Your task to perform on an android device: Go to ESPN.com Image 0: 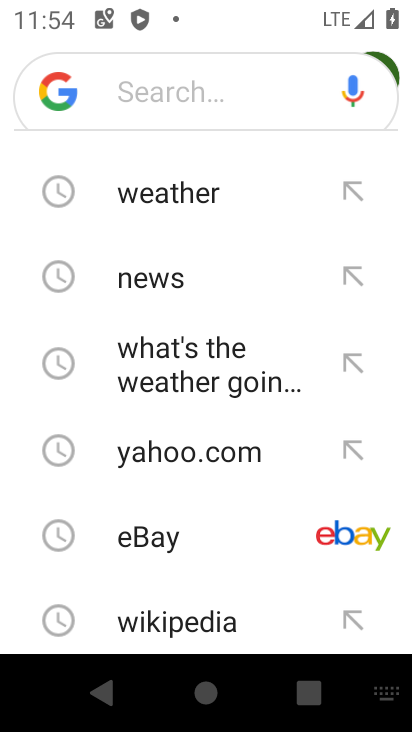
Step 0: press back button
Your task to perform on an android device: Go to ESPN.com Image 1: 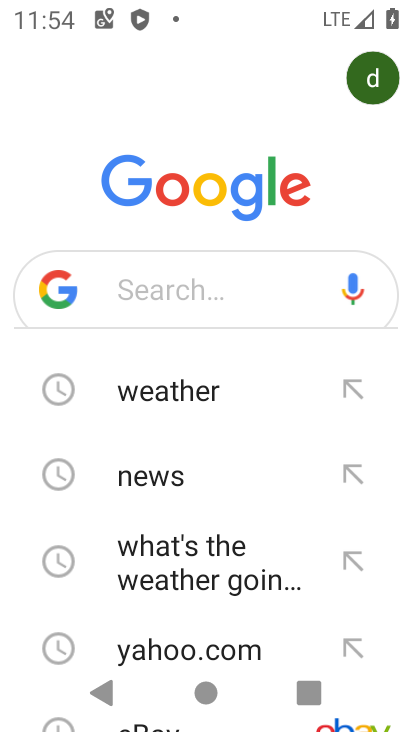
Step 1: press back button
Your task to perform on an android device: Go to ESPN.com Image 2: 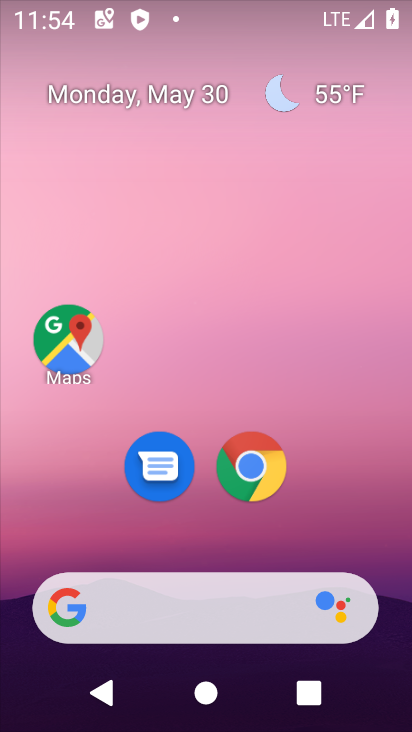
Step 2: click (268, 481)
Your task to perform on an android device: Go to ESPN.com Image 3: 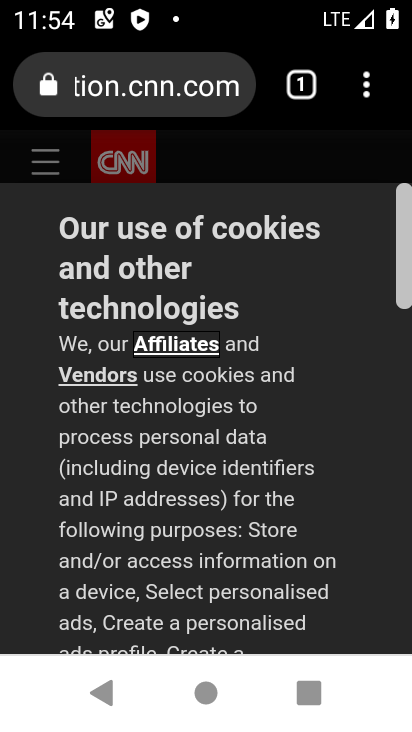
Step 3: click (297, 79)
Your task to perform on an android device: Go to ESPN.com Image 4: 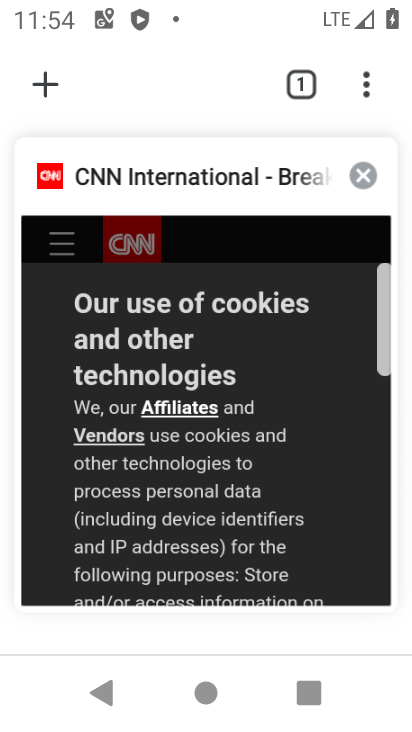
Step 4: click (363, 177)
Your task to perform on an android device: Go to ESPN.com Image 5: 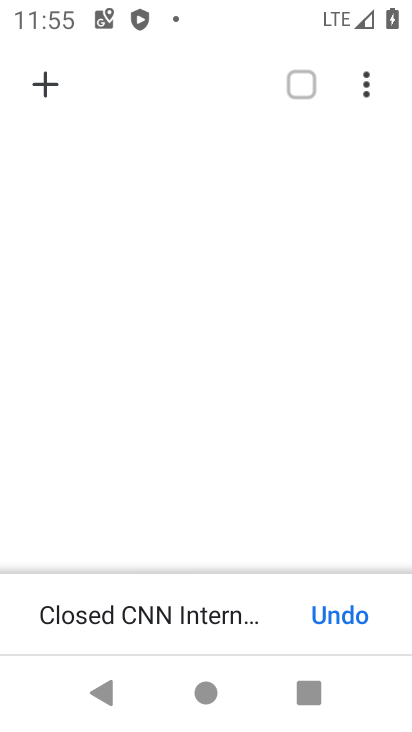
Step 5: click (47, 69)
Your task to perform on an android device: Go to ESPN.com Image 6: 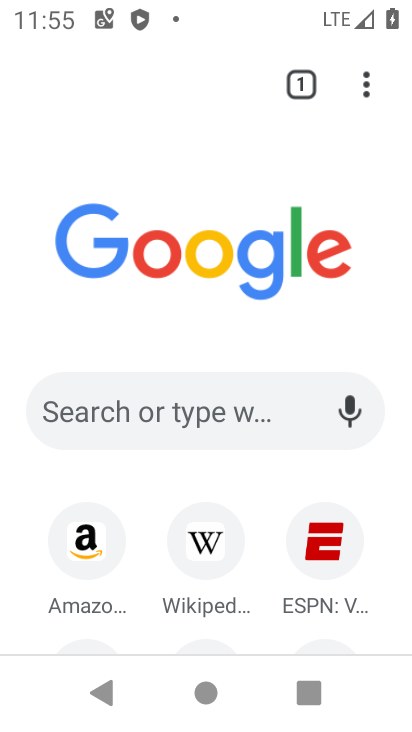
Step 6: click (305, 526)
Your task to perform on an android device: Go to ESPN.com Image 7: 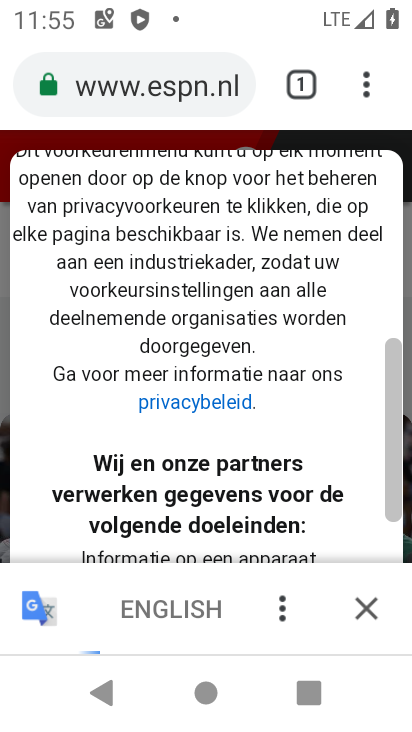
Step 7: task complete